Your task to perform on an android device: snooze an email in the gmail app Image 0: 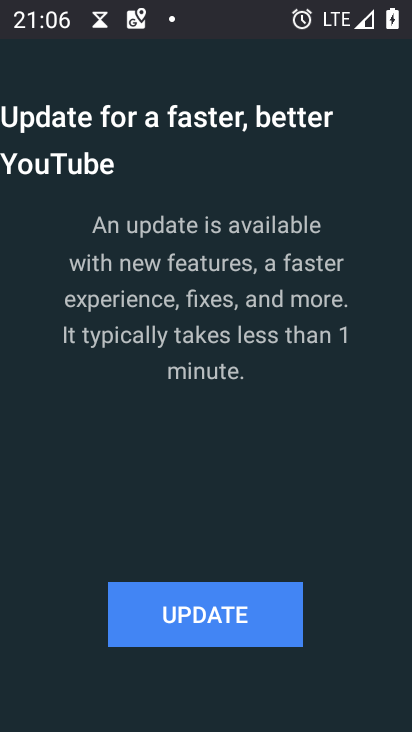
Step 0: press home button
Your task to perform on an android device: snooze an email in the gmail app Image 1: 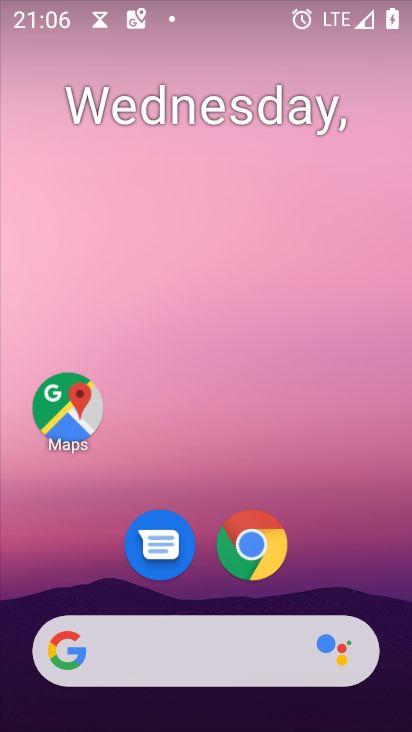
Step 1: drag from (209, 573) to (277, 186)
Your task to perform on an android device: snooze an email in the gmail app Image 2: 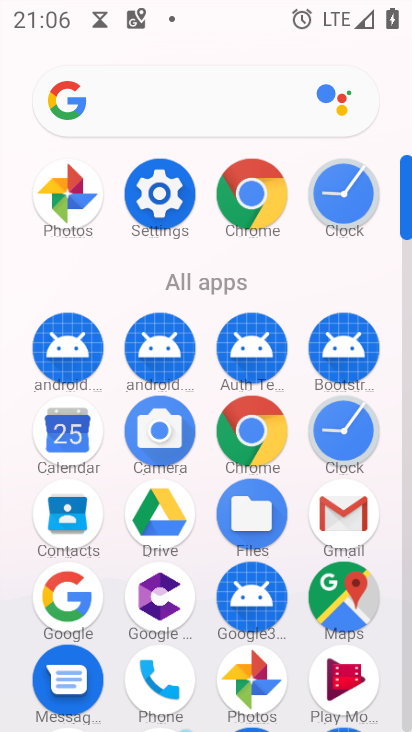
Step 2: click (341, 523)
Your task to perform on an android device: snooze an email in the gmail app Image 3: 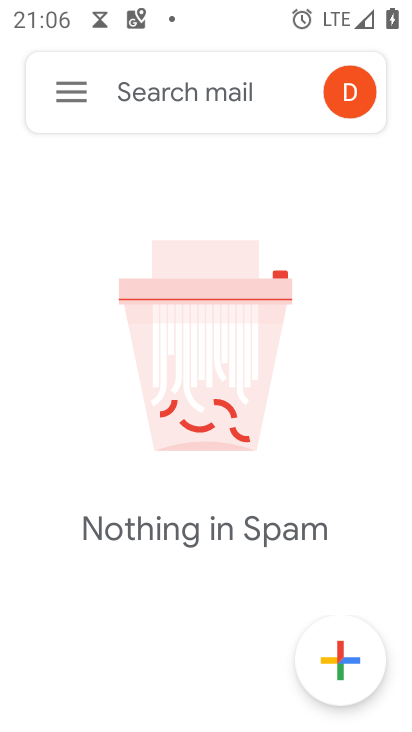
Step 3: click (79, 94)
Your task to perform on an android device: snooze an email in the gmail app Image 4: 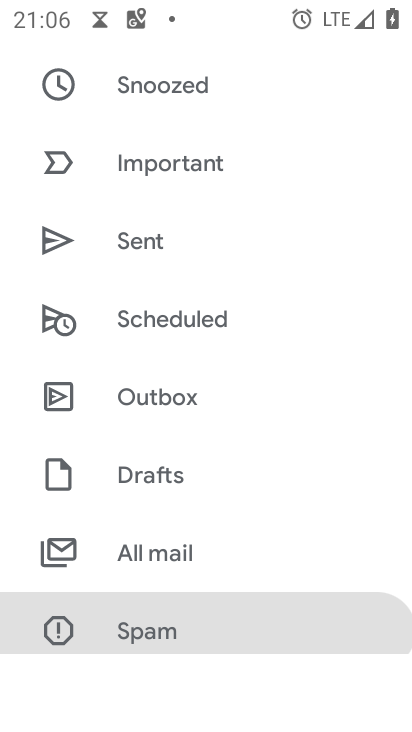
Step 4: click (166, 552)
Your task to perform on an android device: snooze an email in the gmail app Image 5: 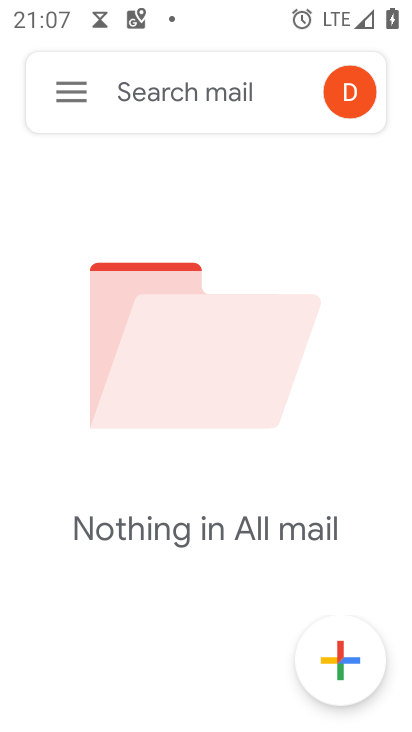
Step 5: task complete